Your task to perform on an android device: open app "Truecaller" (install if not already installed) and go to login screen Image 0: 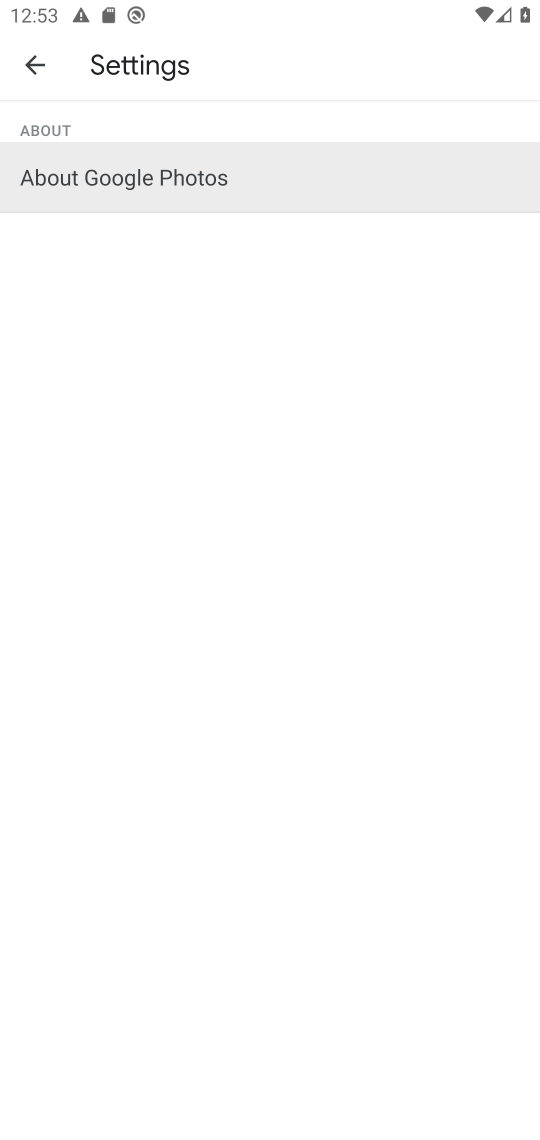
Step 0: press home button
Your task to perform on an android device: open app "Truecaller" (install if not already installed) and go to login screen Image 1: 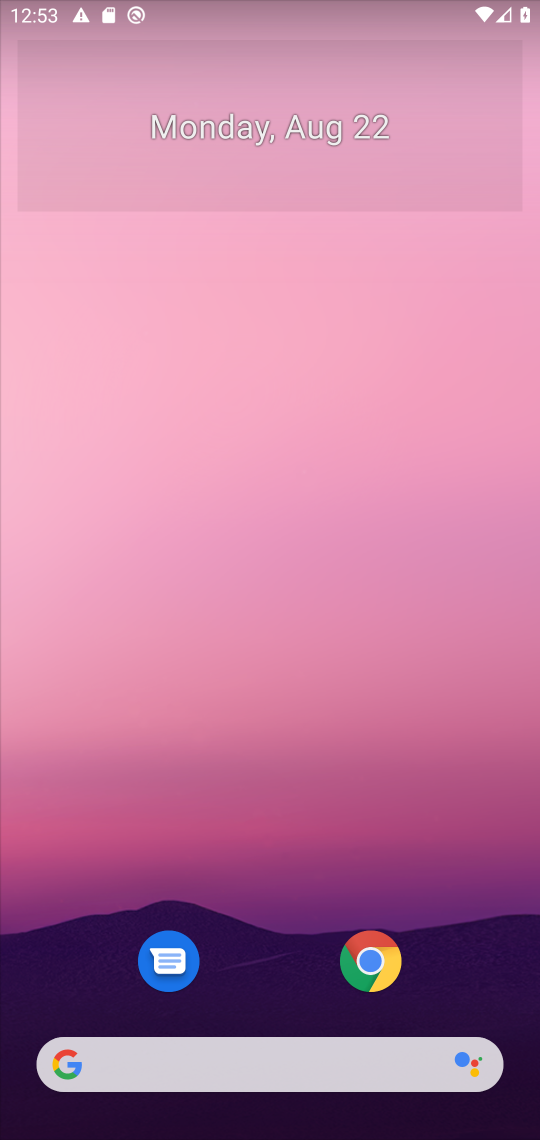
Step 1: drag from (449, 969) to (447, 142)
Your task to perform on an android device: open app "Truecaller" (install if not already installed) and go to login screen Image 2: 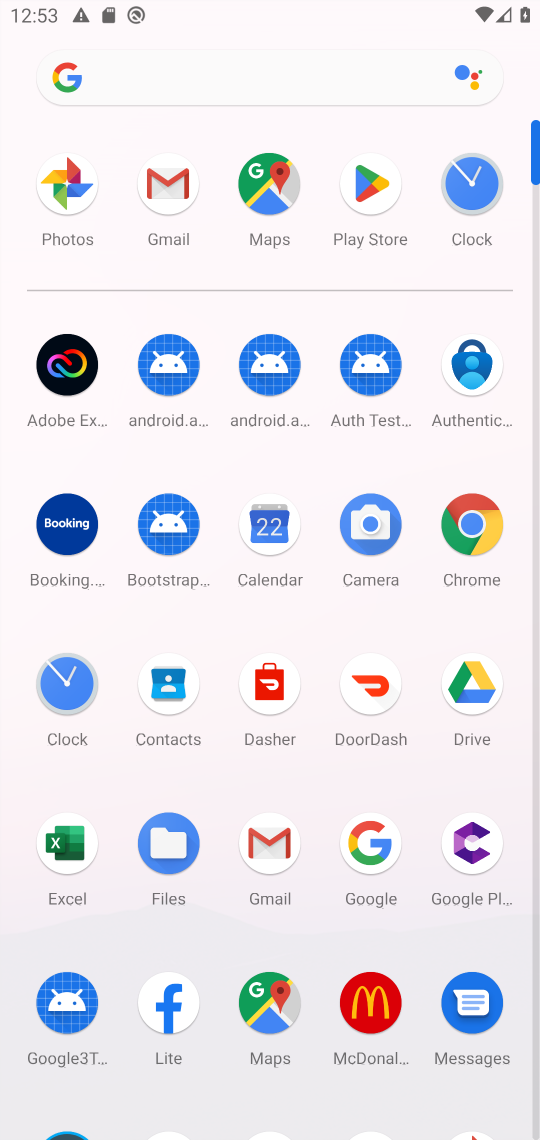
Step 2: click (370, 175)
Your task to perform on an android device: open app "Truecaller" (install if not already installed) and go to login screen Image 3: 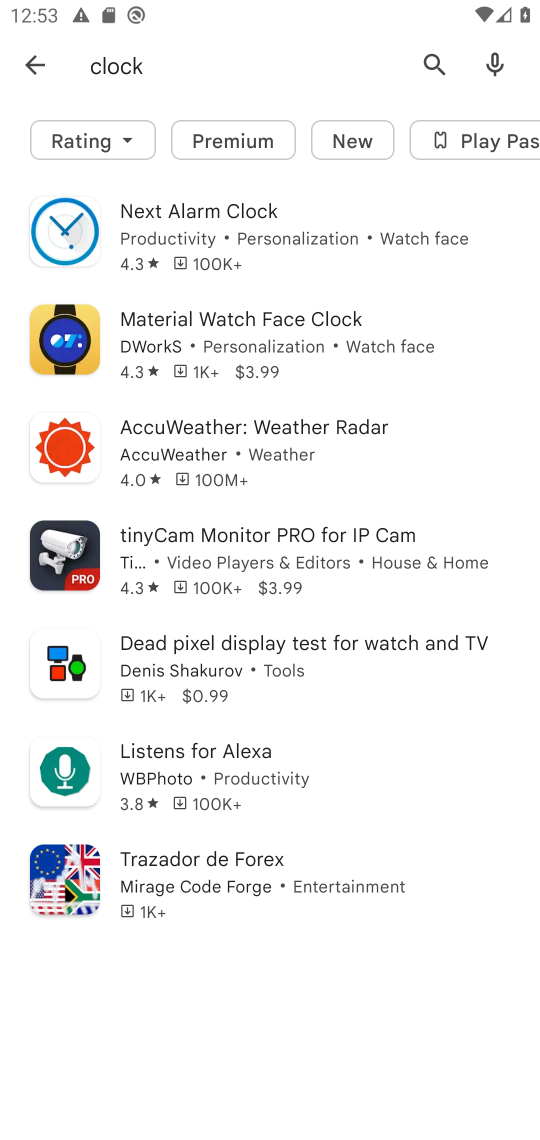
Step 3: press back button
Your task to perform on an android device: open app "Truecaller" (install if not already installed) and go to login screen Image 4: 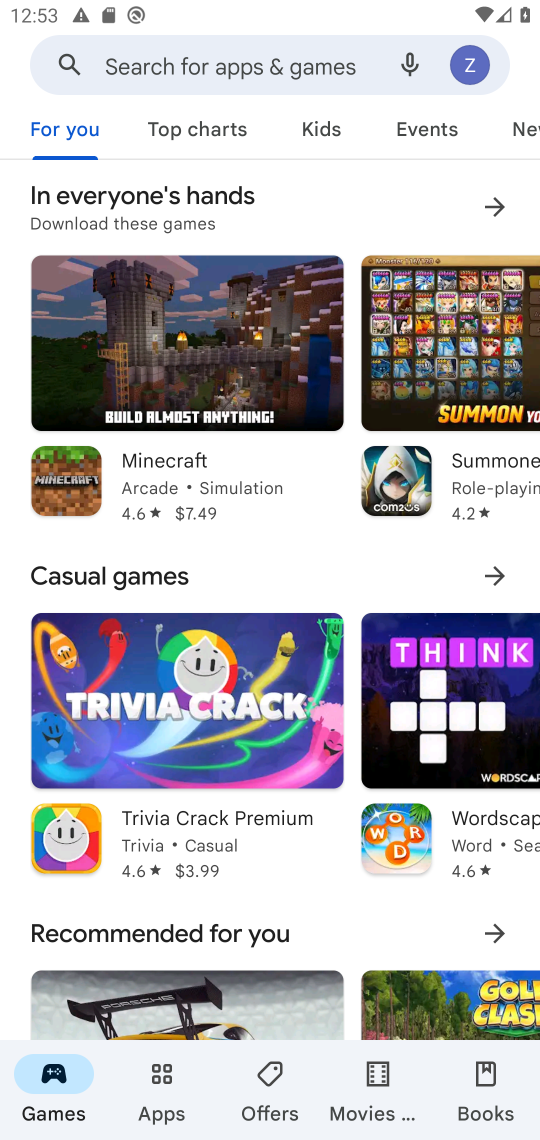
Step 4: click (218, 66)
Your task to perform on an android device: open app "Truecaller" (install if not already installed) and go to login screen Image 5: 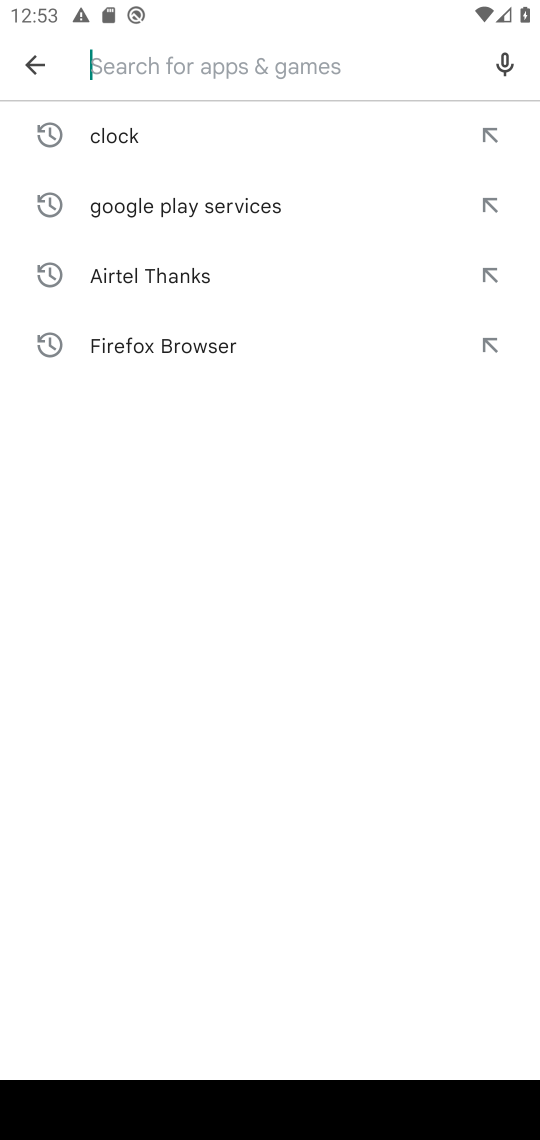
Step 5: type "truecaller"
Your task to perform on an android device: open app "Truecaller" (install if not already installed) and go to login screen Image 6: 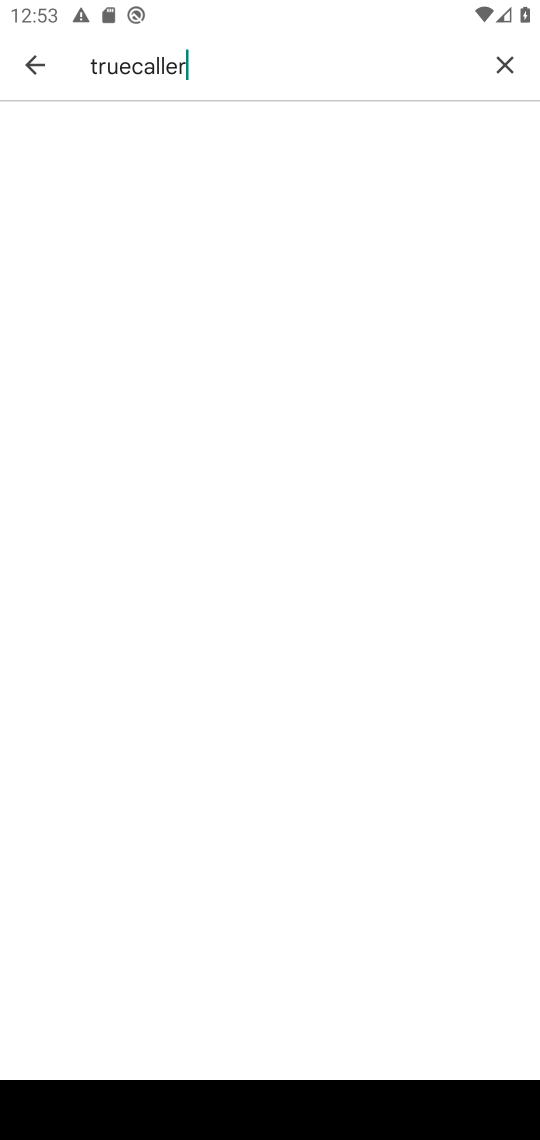
Step 6: press enter
Your task to perform on an android device: open app "Truecaller" (install if not already installed) and go to login screen Image 7: 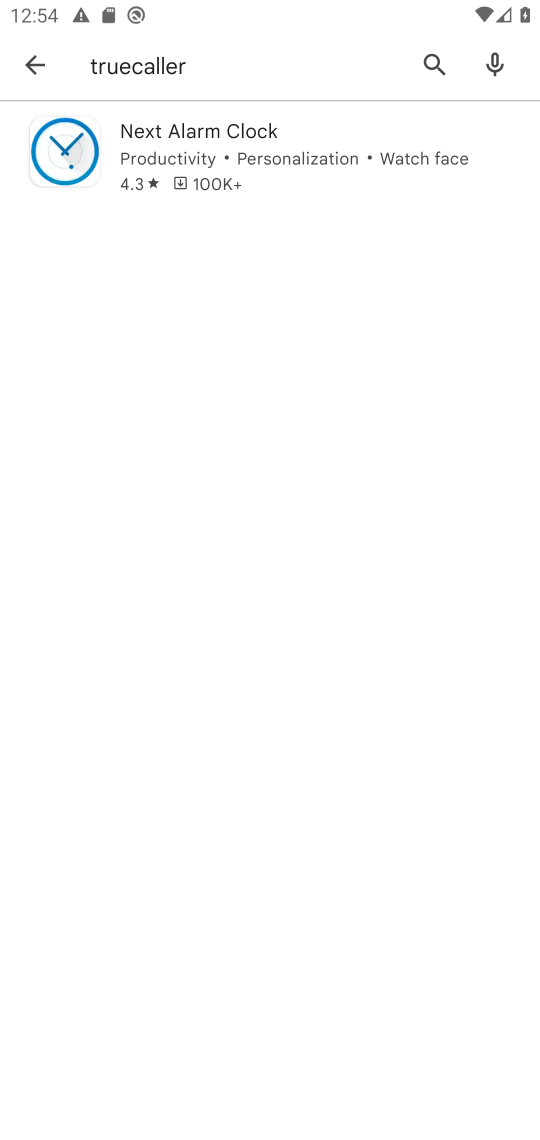
Step 7: task complete